Your task to perform on an android device: When is my next appointment? Image 0: 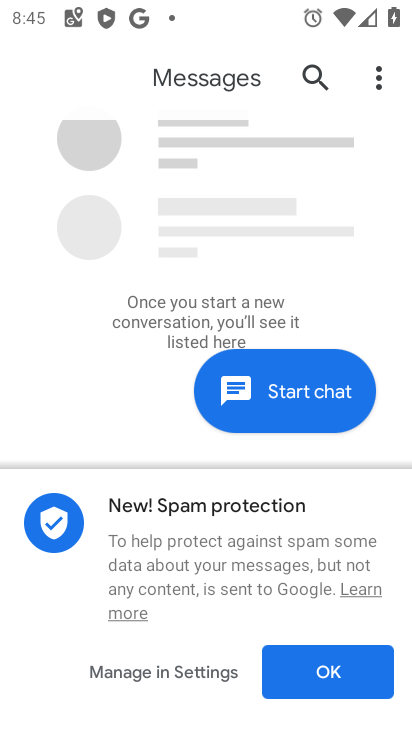
Step 0: press home button
Your task to perform on an android device: When is my next appointment? Image 1: 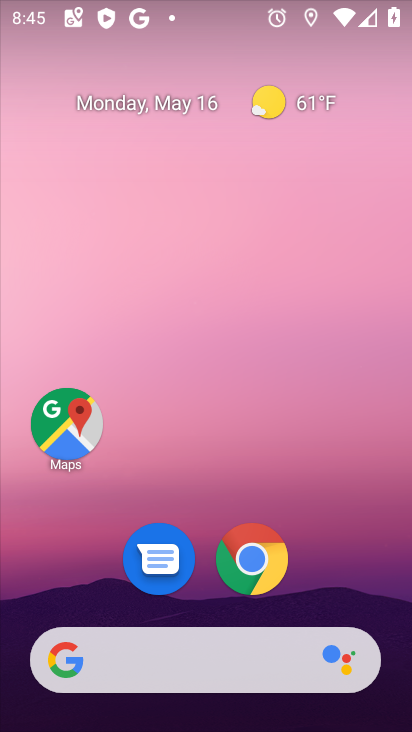
Step 1: drag from (388, 596) to (382, 89)
Your task to perform on an android device: When is my next appointment? Image 2: 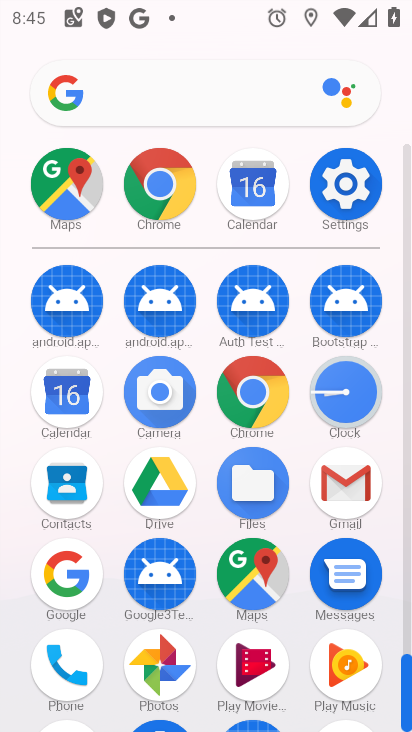
Step 2: drag from (298, 526) to (296, 133)
Your task to perform on an android device: When is my next appointment? Image 3: 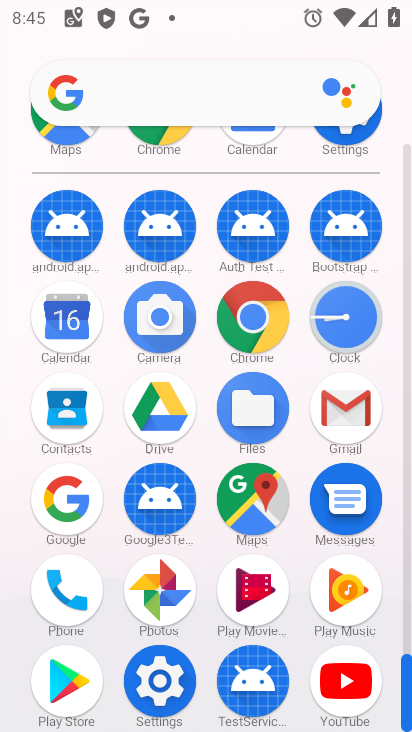
Step 3: click (62, 323)
Your task to perform on an android device: When is my next appointment? Image 4: 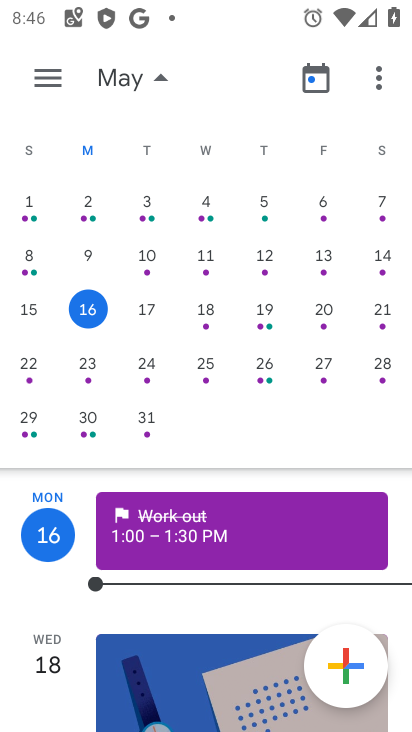
Step 4: task complete